Your task to perform on an android device: open the mobile data screen to see how much data has been used Image 0: 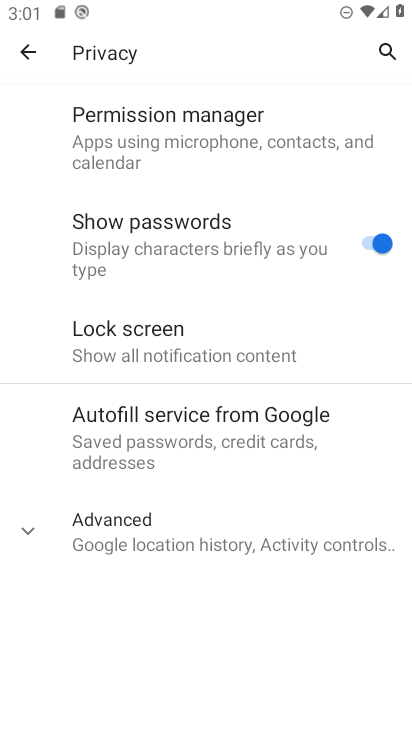
Step 0: press home button
Your task to perform on an android device: open the mobile data screen to see how much data has been used Image 1: 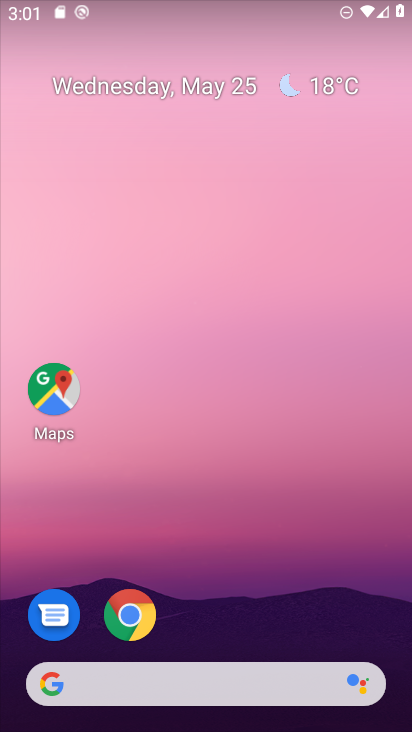
Step 1: drag from (239, 559) to (285, 42)
Your task to perform on an android device: open the mobile data screen to see how much data has been used Image 2: 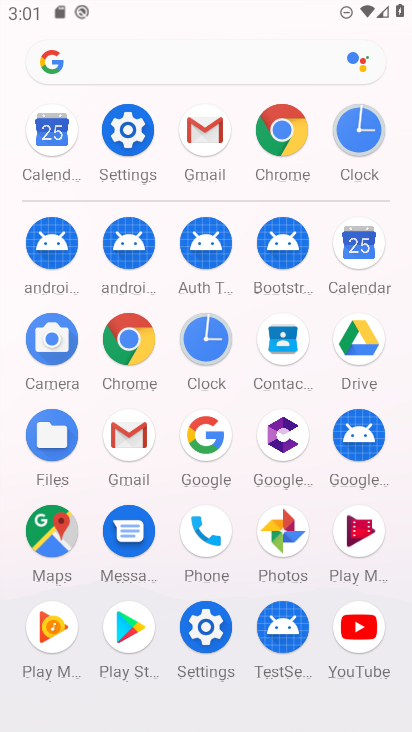
Step 2: click (130, 127)
Your task to perform on an android device: open the mobile data screen to see how much data has been used Image 3: 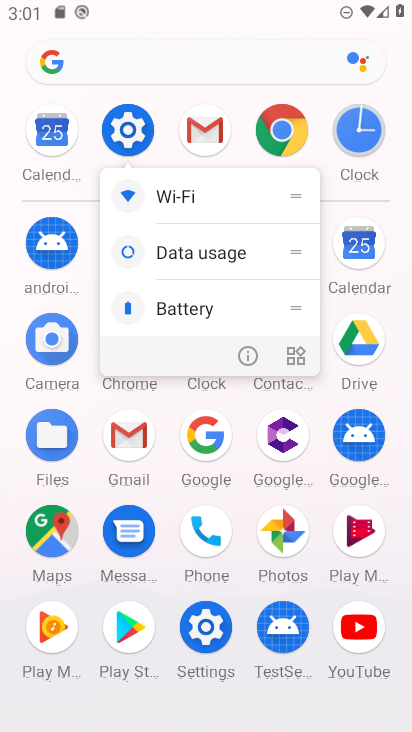
Step 3: click (130, 126)
Your task to perform on an android device: open the mobile data screen to see how much data has been used Image 4: 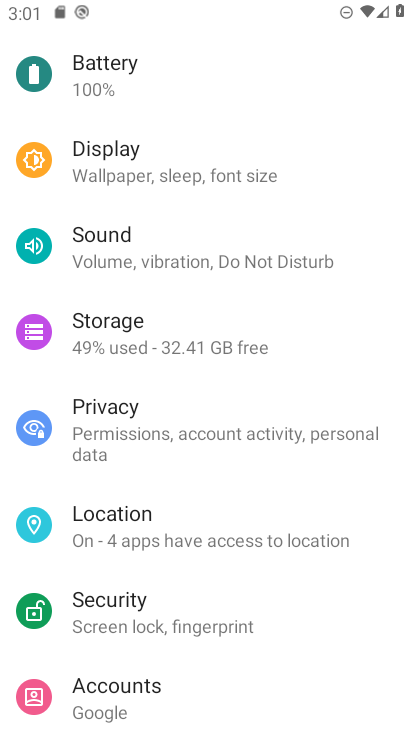
Step 4: drag from (190, 211) to (234, 627)
Your task to perform on an android device: open the mobile data screen to see how much data has been used Image 5: 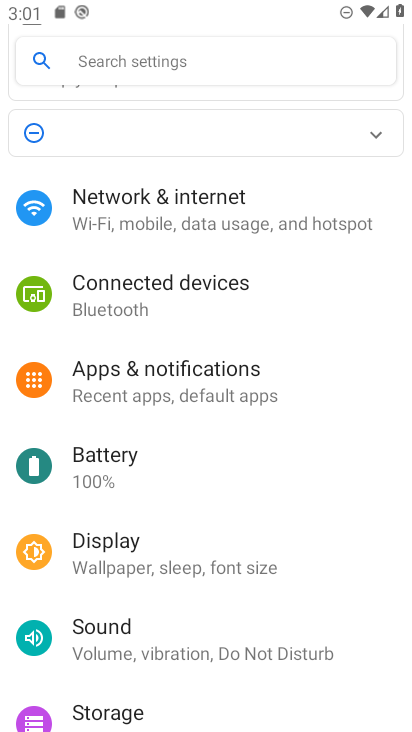
Step 5: click (253, 220)
Your task to perform on an android device: open the mobile data screen to see how much data has been used Image 6: 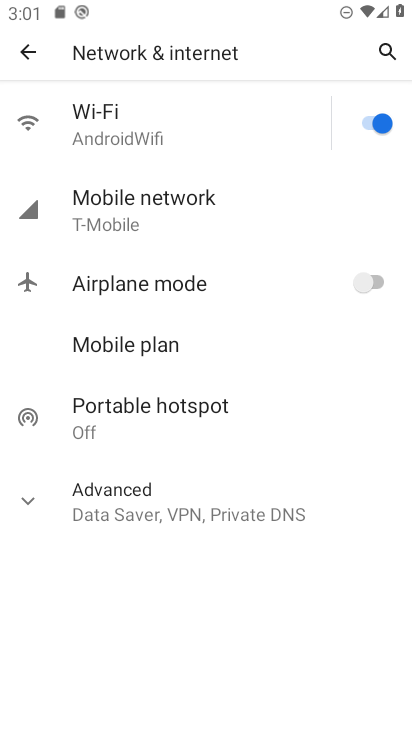
Step 6: click (253, 221)
Your task to perform on an android device: open the mobile data screen to see how much data has been used Image 7: 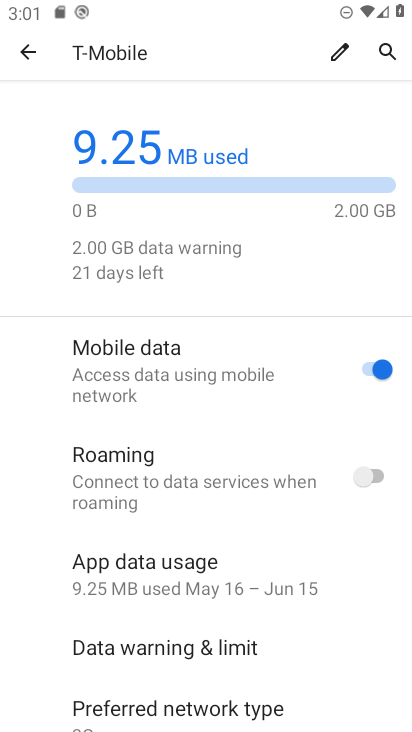
Step 7: task complete